Your task to perform on an android device: clear all cookies in the chrome app Image 0: 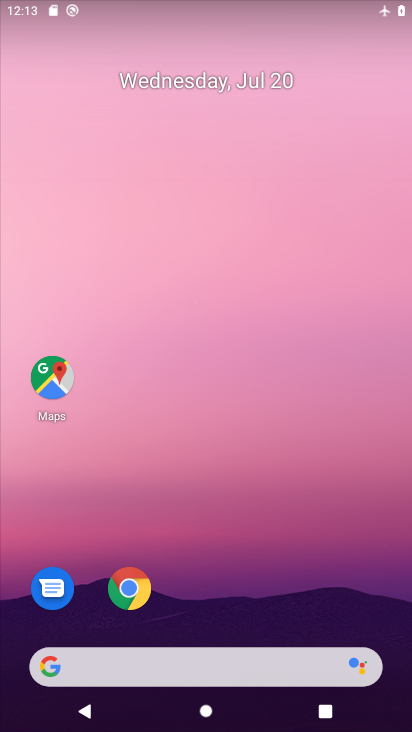
Step 0: drag from (242, 338) to (239, 224)
Your task to perform on an android device: clear all cookies in the chrome app Image 1: 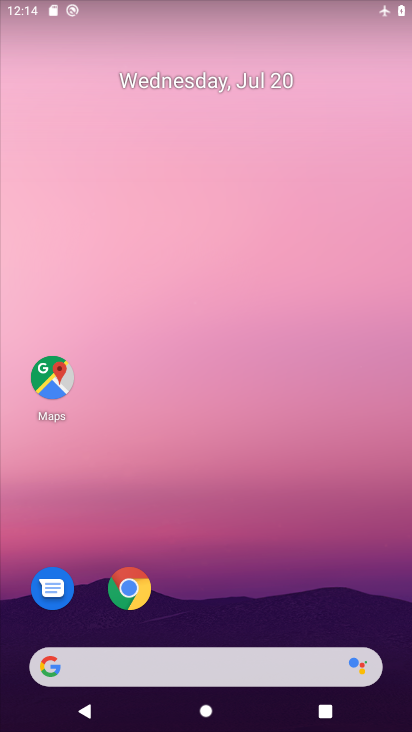
Step 1: drag from (224, 657) to (232, 261)
Your task to perform on an android device: clear all cookies in the chrome app Image 2: 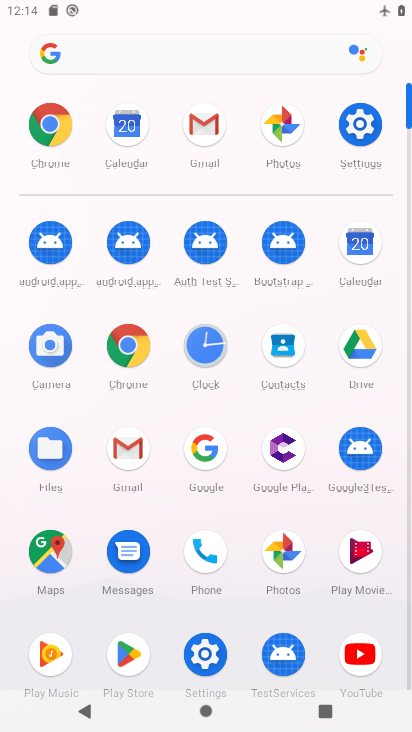
Step 2: click (63, 118)
Your task to perform on an android device: clear all cookies in the chrome app Image 3: 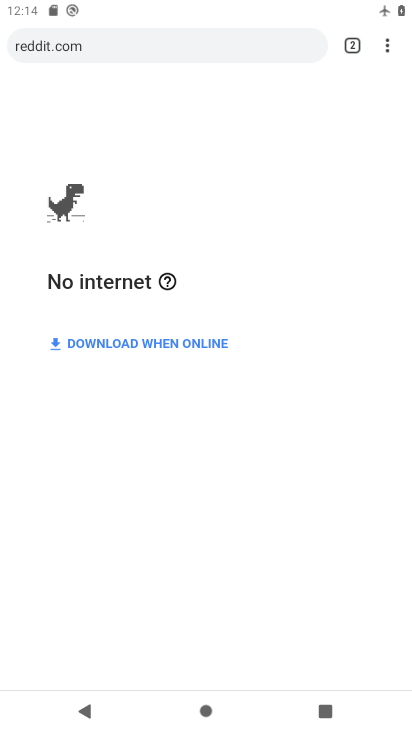
Step 3: click (390, 48)
Your task to perform on an android device: clear all cookies in the chrome app Image 4: 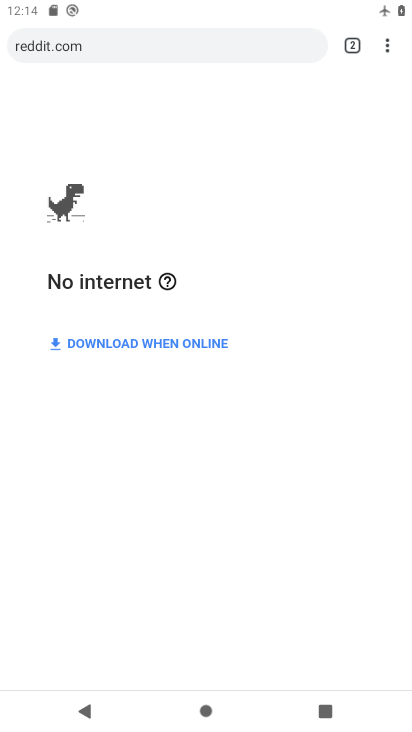
Step 4: click (392, 38)
Your task to perform on an android device: clear all cookies in the chrome app Image 5: 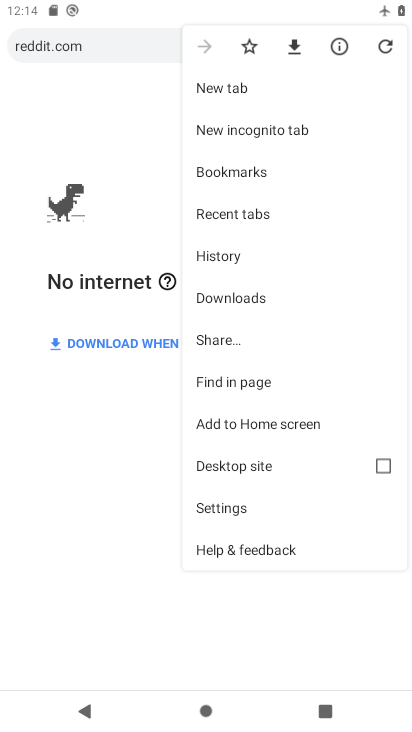
Step 5: click (223, 508)
Your task to perform on an android device: clear all cookies in the chrome app Image 6: 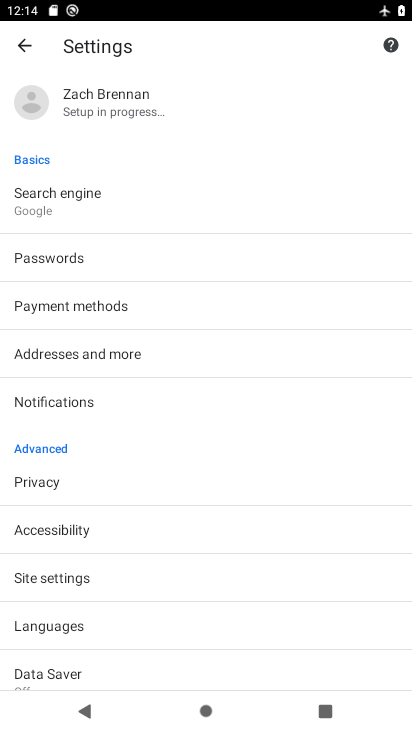
Step 6: click (104, 584)
Your task to perform on an android device: clear all cookies in the chrome app Image 7: 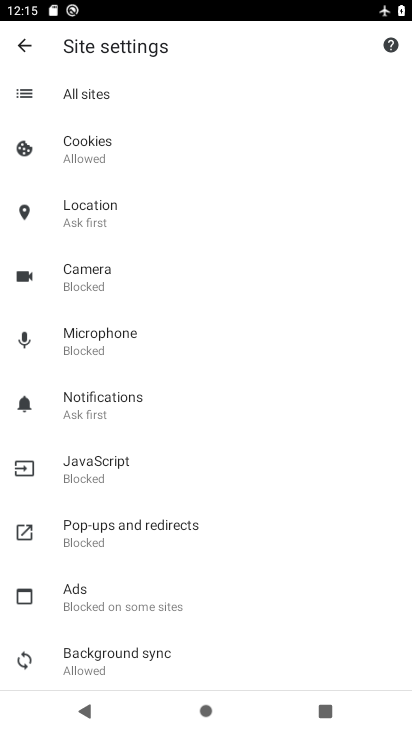
Step 7: click (136, 140)
Your task to perform on an android device: clear all cookies in the chrome app Image 8: 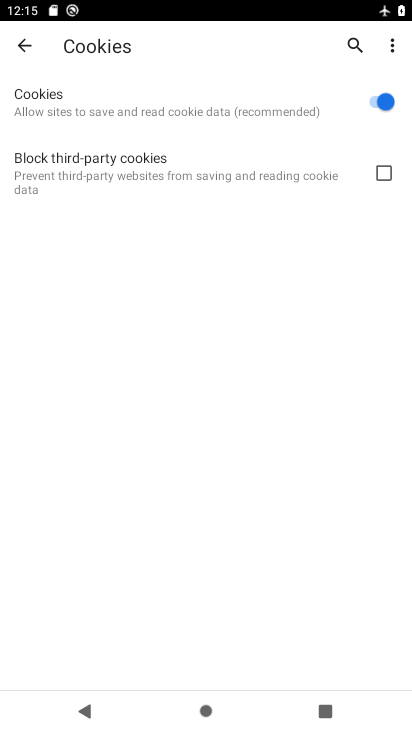
Step 8: click (34, 41)
Your task to perform on an android device: clear all cookies in the chrome app Image 9: 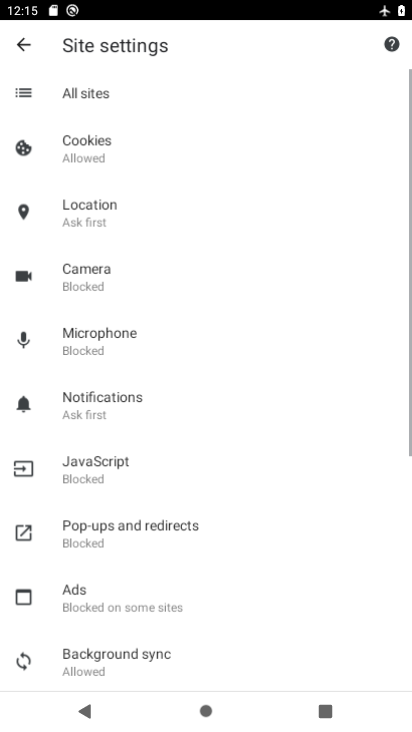
Step 9: click (34, 41)
Your task to perform on an android device: clear all cookies in the chrome app Image 10: 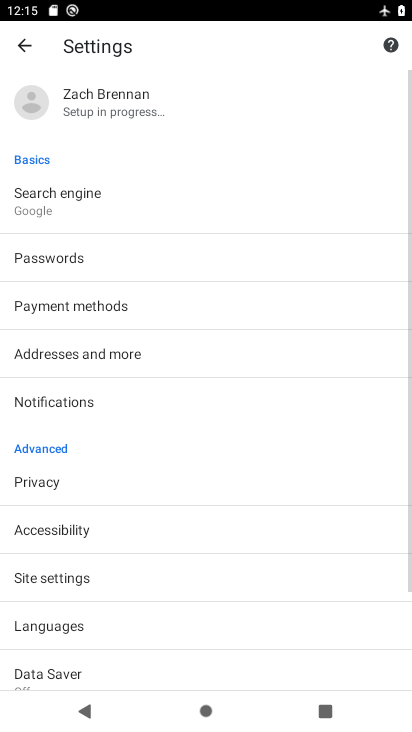
Step 10: click (90, 484)
Your task to perform on an android device: clear all cookies in the chrome app Image 11: 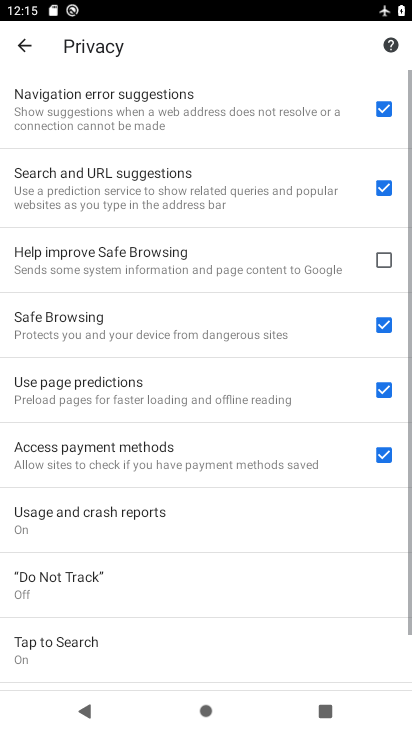
Step 11: drag from (158, 641) to (195, 195)
Your task to perform on an android device: clear all cookies in the chrome app Image 12: 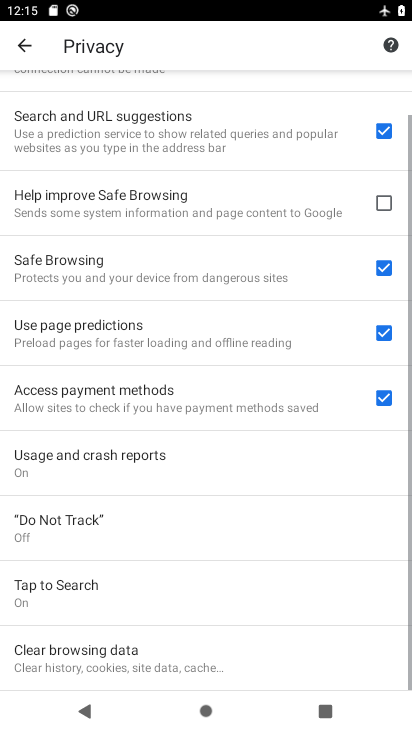
Step 12: click (236, 667)
Your task to perform on an android device: clear all cookies in the chrome app Image 13: 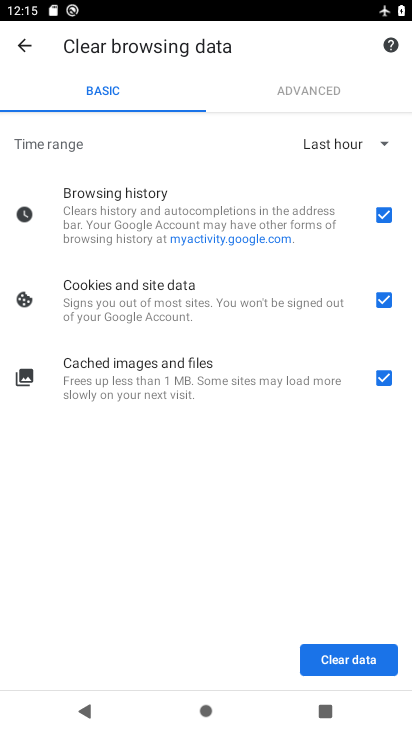
Step 13: click (312, 655)
Your task to perform on an android device: clear all cookies in the chrome app Image 14: 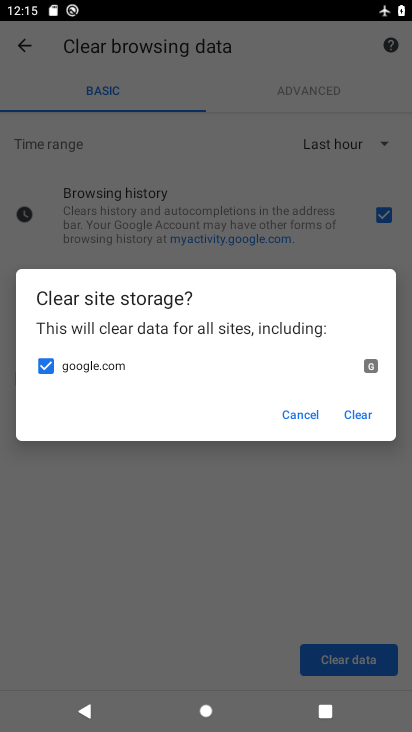
Step 14: click (350, 417)
Your task to perform on an android device: clear all cookies in the chrome app Image 15: 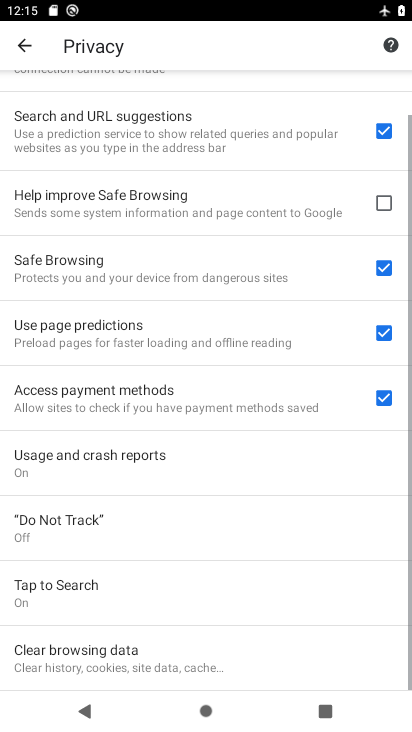
Step 15: task complete